Your task to perform on an android device: Go to accessibility settings Image 0: 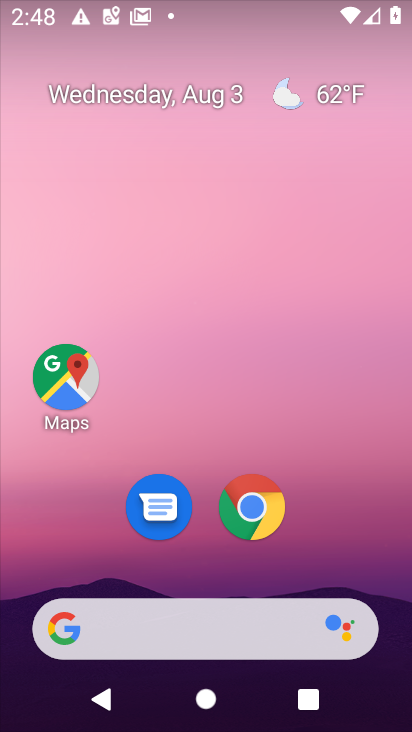
Step 0: click (77, 43)
Your task to perform on an android device: Go to accessibility settings Image 1: 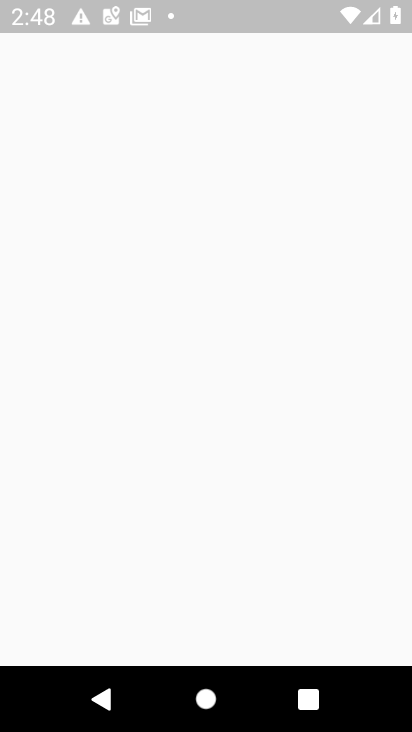
Step 1: press home button
Your task to perform on an android device: Go to accessibility settings Image 2: 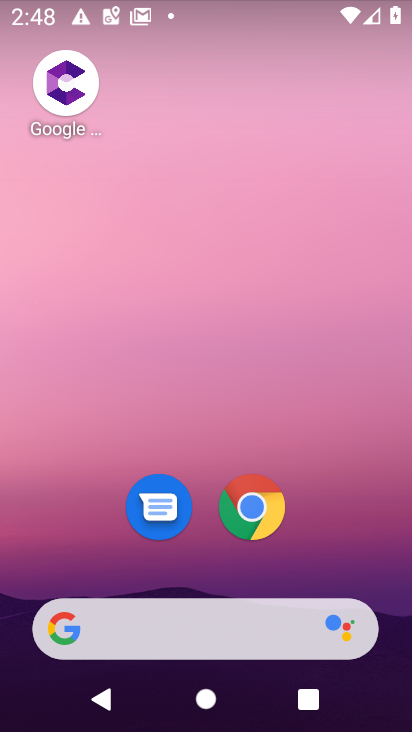
Step 2: drag from (340, 542) to (143, 70)
Your task to perform on an android device: Go to accessibility settings Image 3: 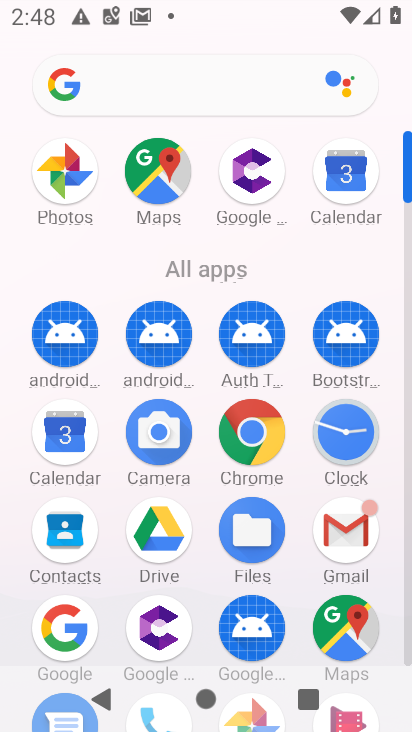
Step 3: drag from (198, 579) to (69, 216)
Your task to perform on an android device: Go to accessibility settings Image 4: 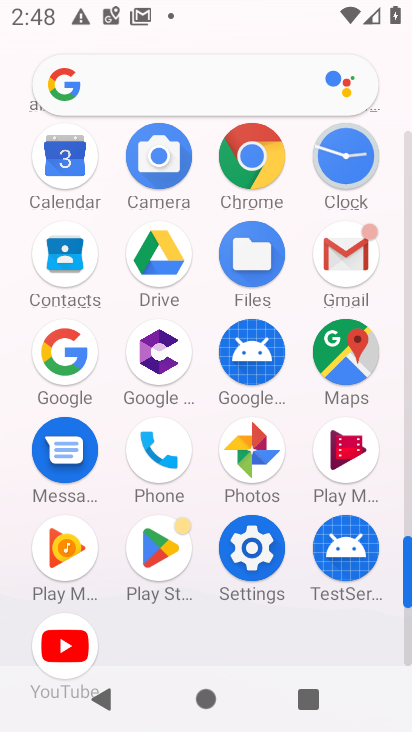
Step 4: click (255, 552)
Your task to perform on an android device: Go to accessibility settings Image 5: 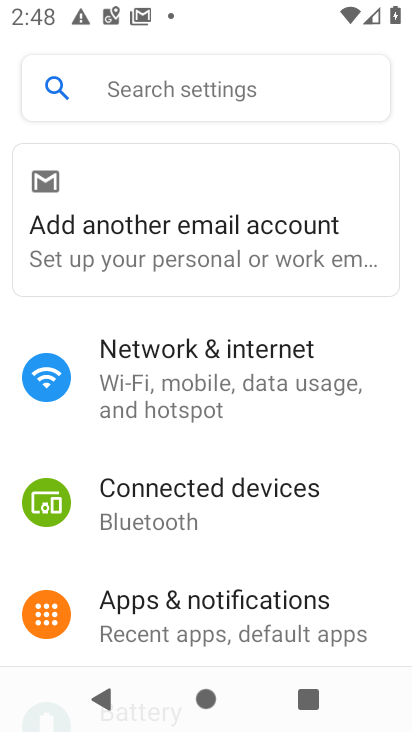
Step 5: drag from (244, 564) to (180, 109)
Your task to perform on an android device: Go to accessibility settings Image 6: 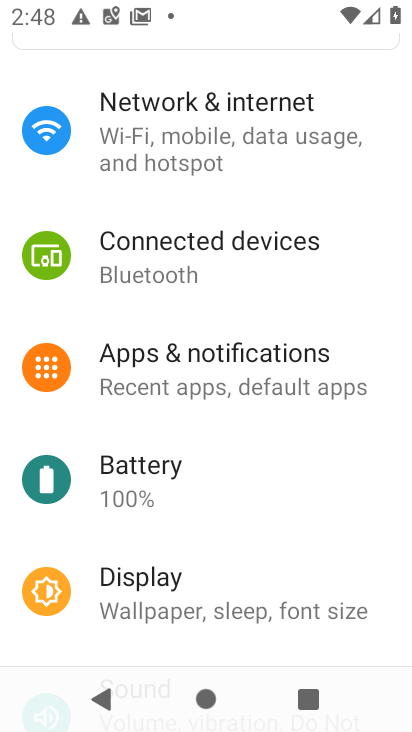
Step 6: drag from (172, 607) to (147, 91)
Your task to perform on an android device: Go to accessibility settings Image 7: 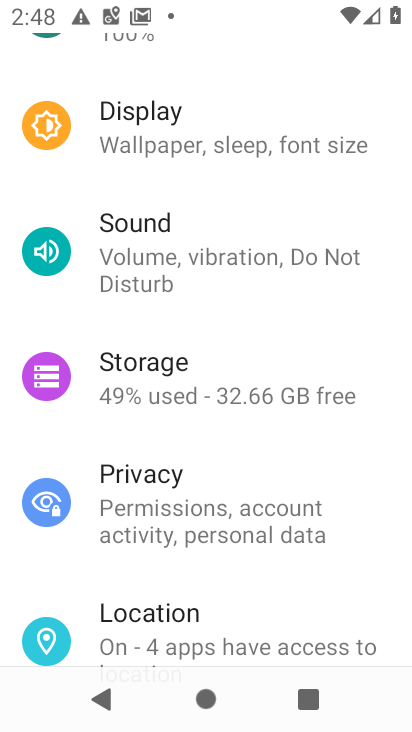
Step 7: drag from (183, 553) to (134, 119)
Your task to perform on an android device: Go to accessibility settings Image 8: 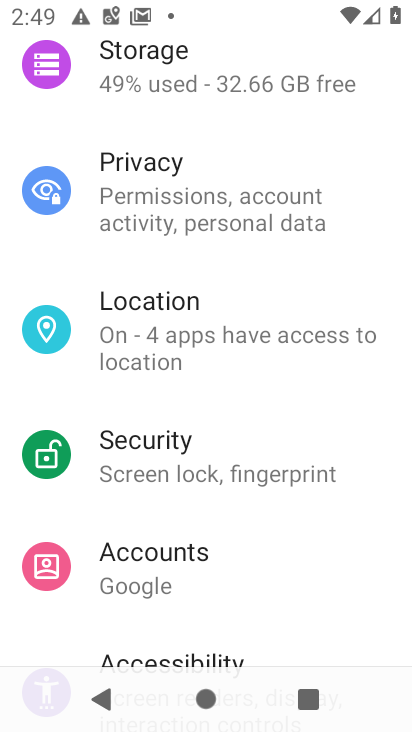
Step 8: drag from (152, 595) to (139, 300)
Your task to perform on an android device: Go to accessibility settings Image 9: 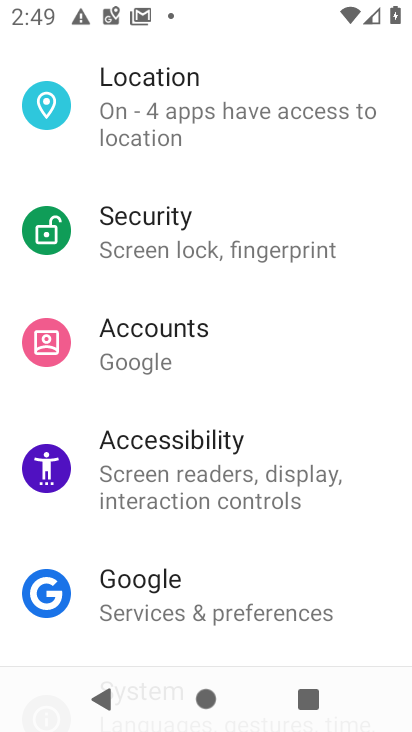
Step 9: click (141, 459)
Your task to perform on an android device: Go to accessibility settings Image 10: 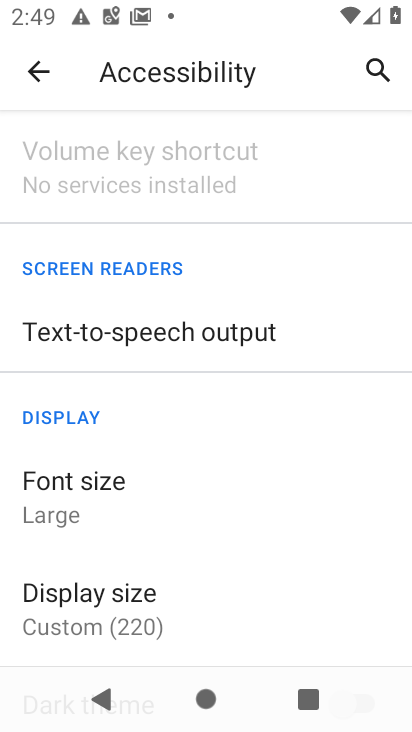
Step 10: press home button
Your task to perform on an android device: Go to accessibility settings Image 11: 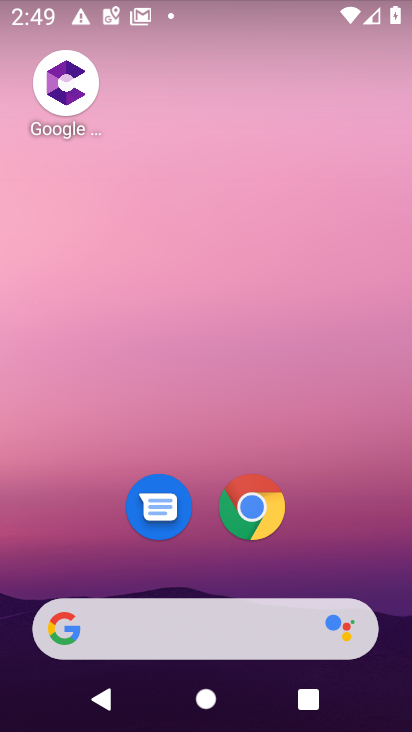
Step 11: drag from (371, 581) to (238, 94)
Your task to perform on an android device: Go to accessibility settings Image 12: 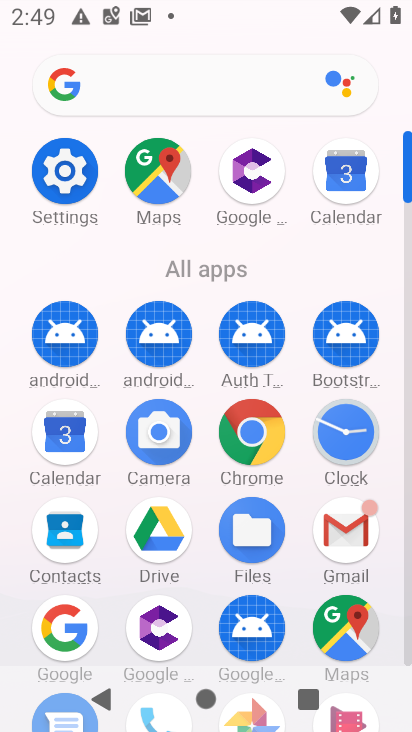
Step 12: click (72, 154)
Your task to perform on an android device: Go to accessibility settings Image 13: 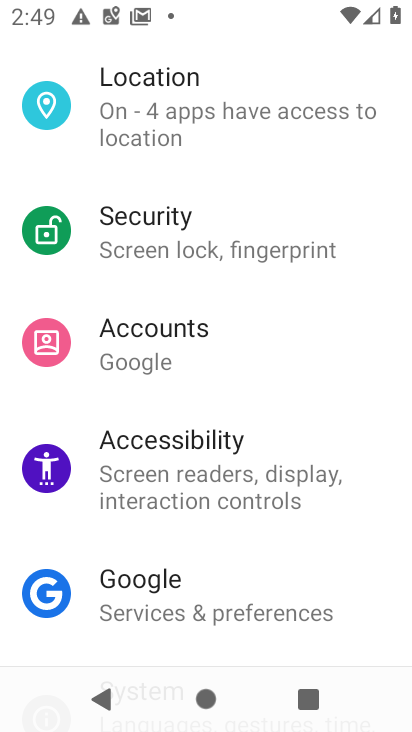
Step 13: click (164, 487)
Your task to perform on an android device: Go to accessibility settings Image 14: 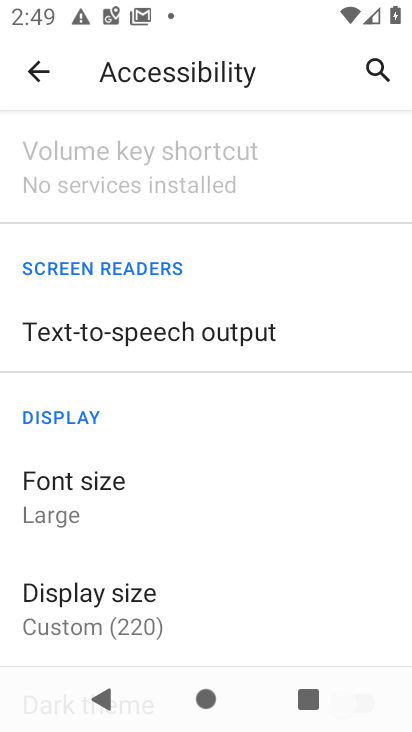
Step 14: task complete